Your task to perform on an android device: Show me productivity apps on the Play Store Image 0: 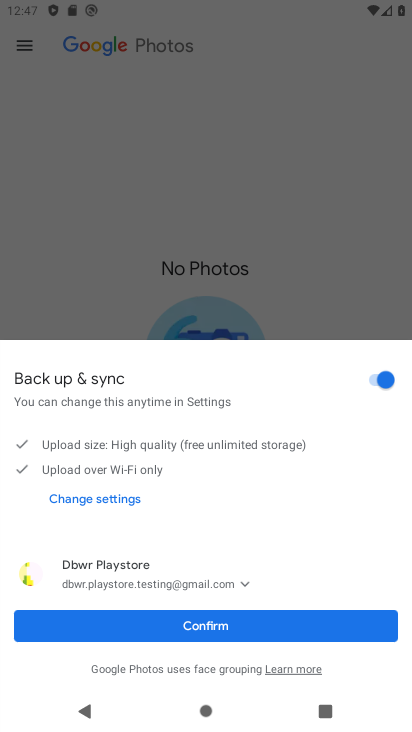
Step 0: press back button
Your task to perform on an android device: Show me productivity apps on the Play Store Image 1: 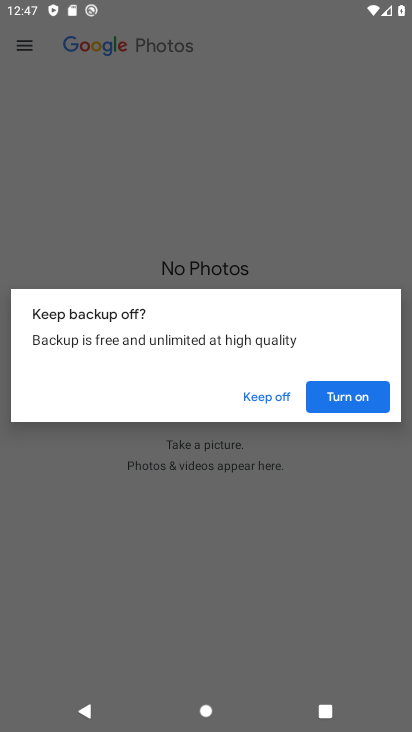
Step 1: press home button
Your task to perform on an android device: Show me productivity apps on the Play Store Image 2: 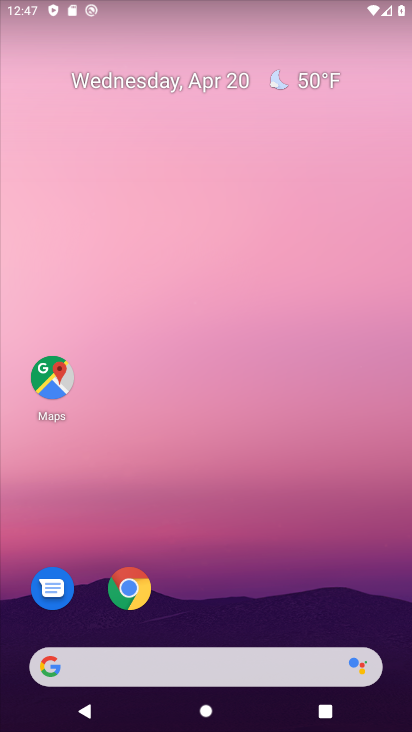
Step 2: drag from (178, 642) to (151, 261)
Your task to perform on an android device: Show me productivity apps on the Play Store Image 3: 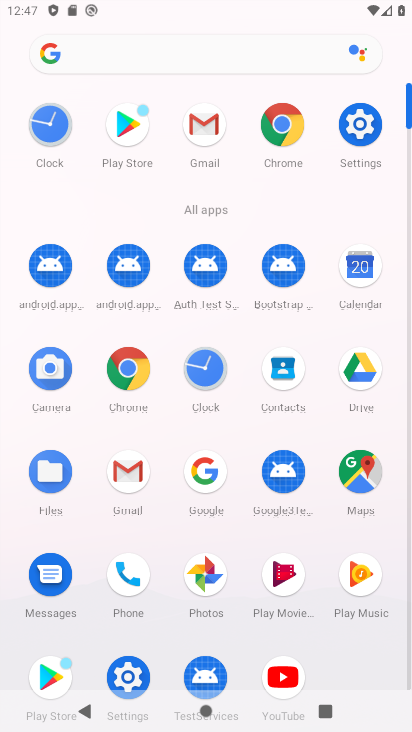
Step 3: click (51, 673)
Your task to perform on an android device: Show me productivity apps on the Play Store Image 4: 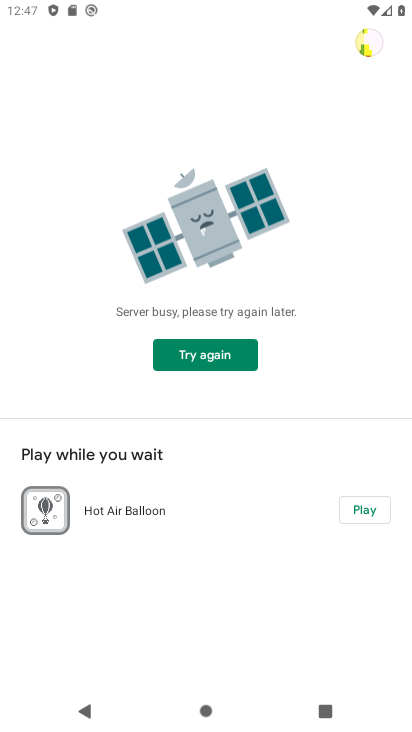
Step 4: click (216, 358)
Your task to perform on an android device: Show me productivity apps on the Play Store Image 5: 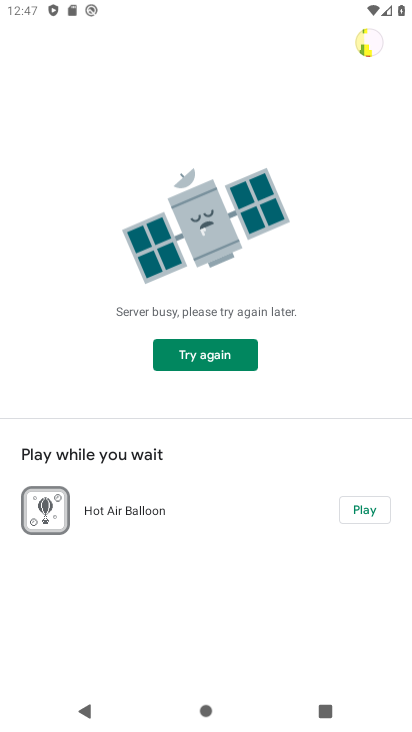
Step 5: task complete